Your task to perform on an android device: Open my contact list Image 0: 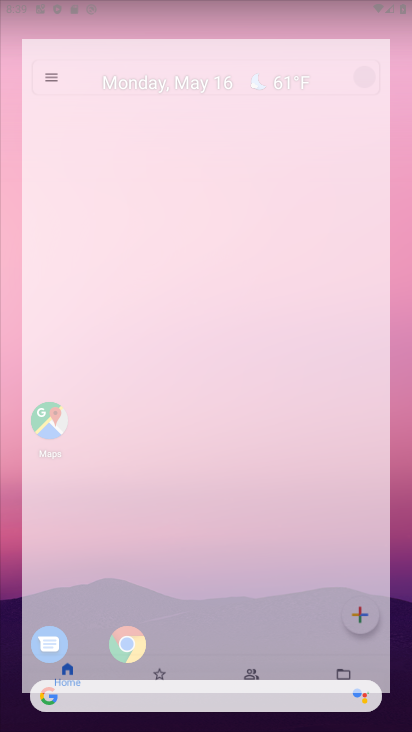
Step 0: drag from (129, 647) to (409, 422)
Your task to perform on an android device: Open my contact list Image 1: 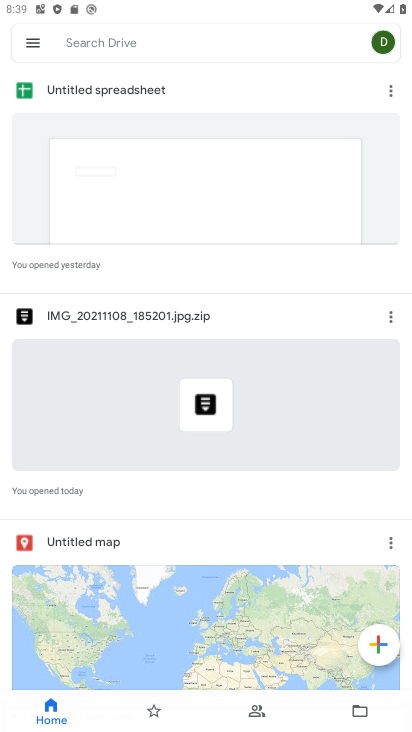
Step 1: press home button
Your task to perform on an android device: Open my contact list Image 2: 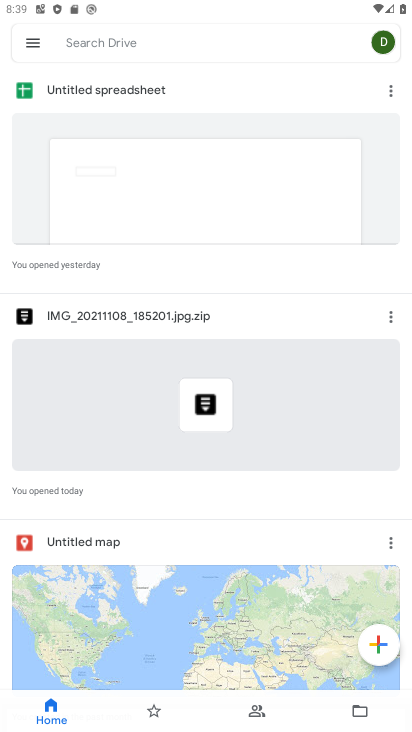
Step 2: click (407, 253)
Your task to perform on an android device: Open my contact list Image 3: 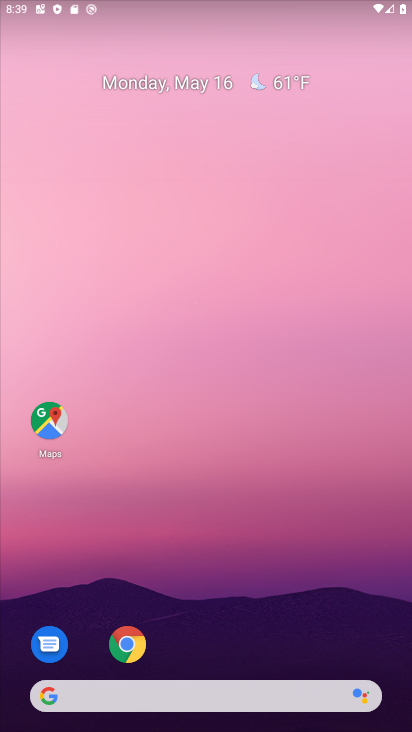
Step 3: drag from (243, 605) to (243, 96)
Your task to perform on an android device: Open my contact list Image 4: 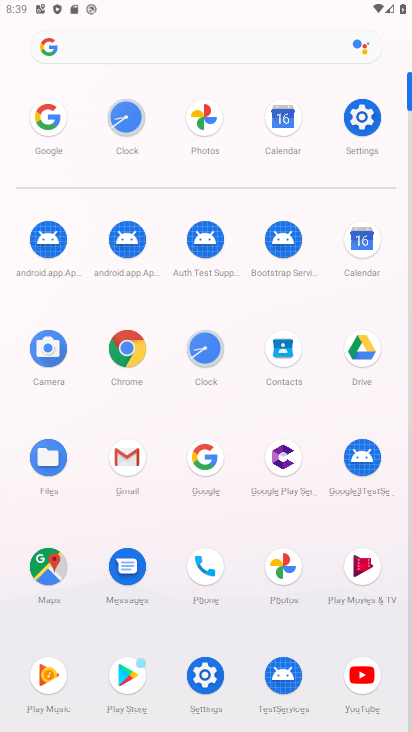
Step 4: click (283, 346)
Your task to perform on an android device: Open my contact list Image 5: 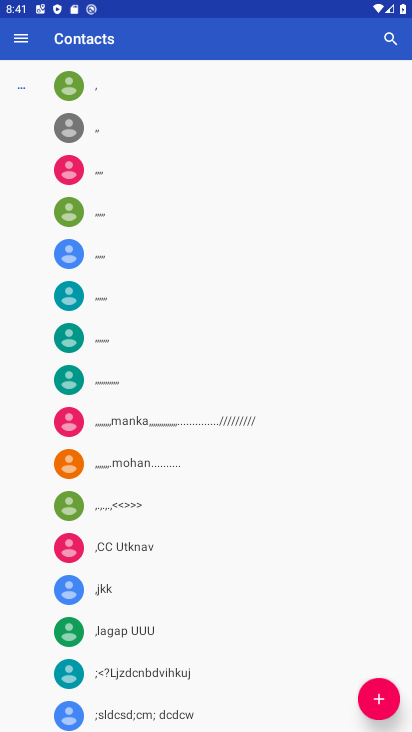
Step 5: task complete